Your task to perform on an android device: turn on showing notifications on the lock screen Image 0: 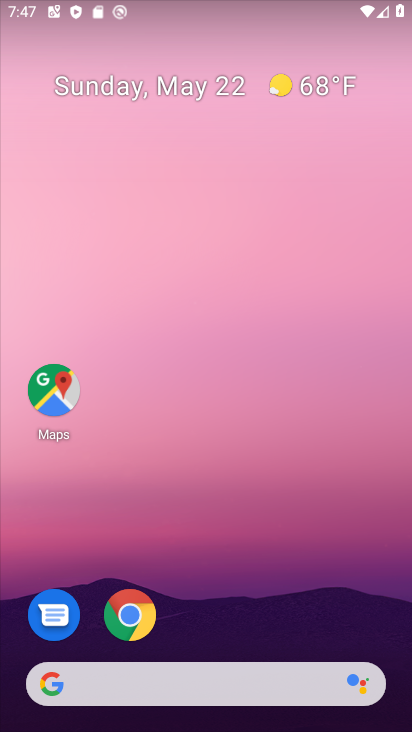
Step 0: drag from (228, 649) to (104, 259)
Your task to perform on an android device: turn on showing notifications on the lock screen Image 1: 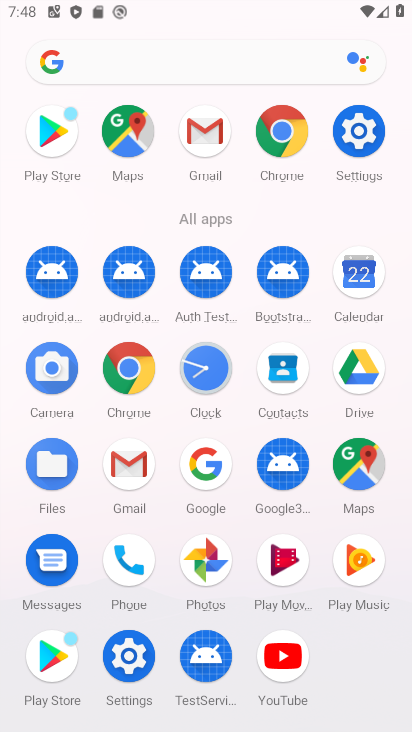
Step 1: click (361, 157)
Your task to perform on an android device: turn on showing notifications on the lock screen Image 2: 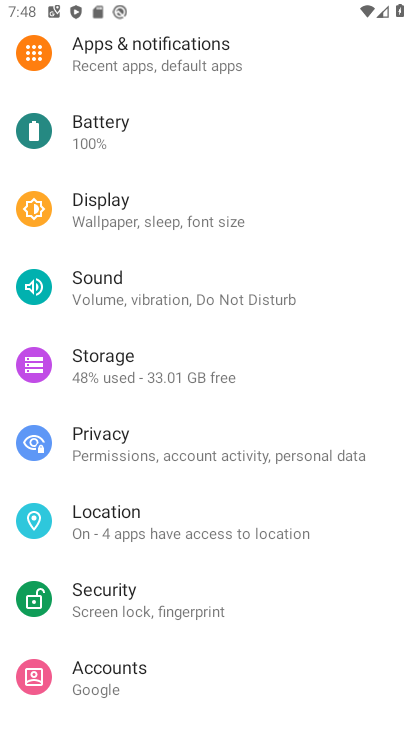
Step 2: click (195, 54)
Your task to perform on an android device: turn on showing notifications on the lock screen Image 3: 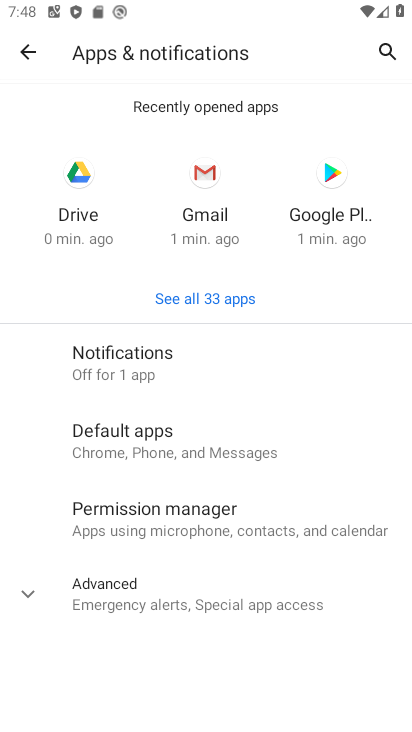
Step 3: click (118, 347)
Your task to perform on an android device: turn on showing notifications on the lock screen Image 4: 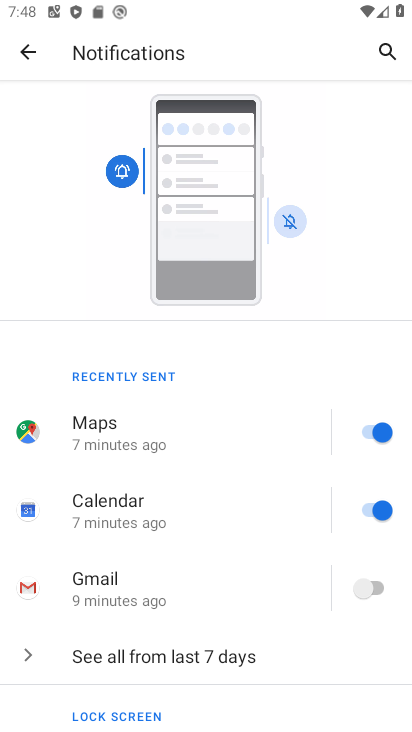
Step 4: drag from (292, 697) to (226, 261)
Your task to perform on an android device: turn on showing notifications on the lock screen Image 5: 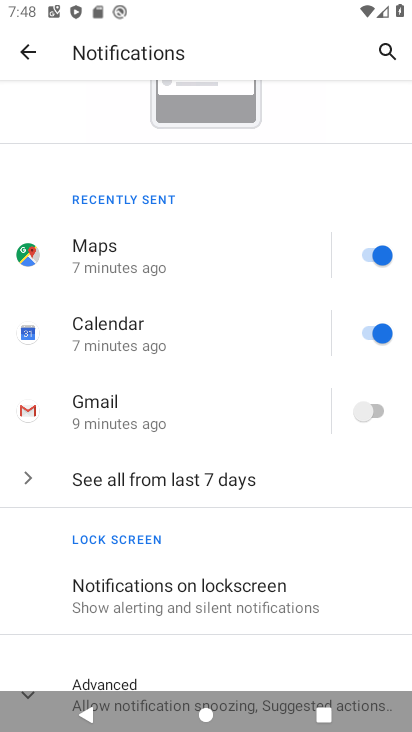
Step 5: click (178, 612)
Your task to perform on an android device: turn on showing notifications on the lock screen Image 6: 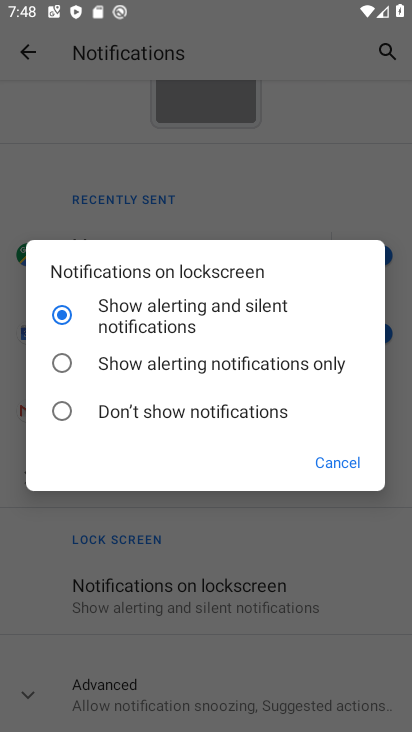
Step 6: click (246, 320)
Your task to perform on an android device: turn on showing notifications on the lock screen Image 7: 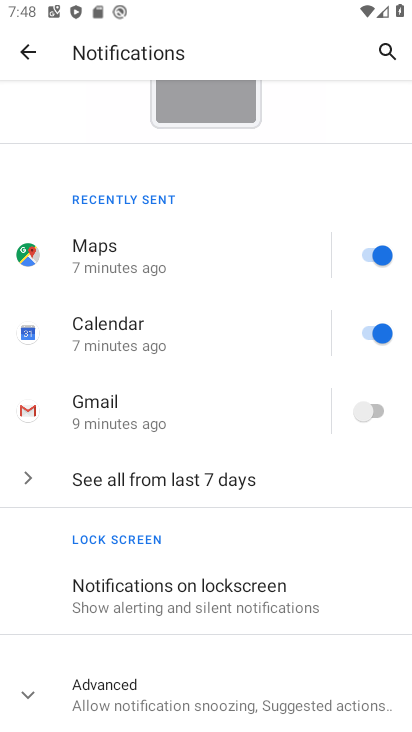
Step 7: task complete